Your task to perform on an android device: Open calendar and show me the first week of next month Image 0: 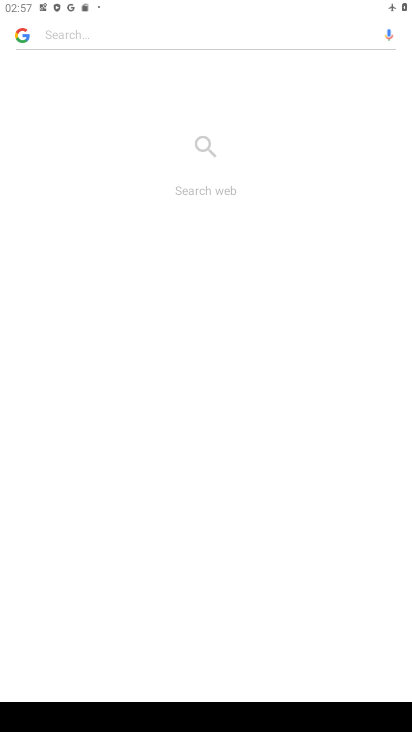
Step 0: press back button
Your task to perform on an android device: Open calendar and show me the first week of next month Image 1: 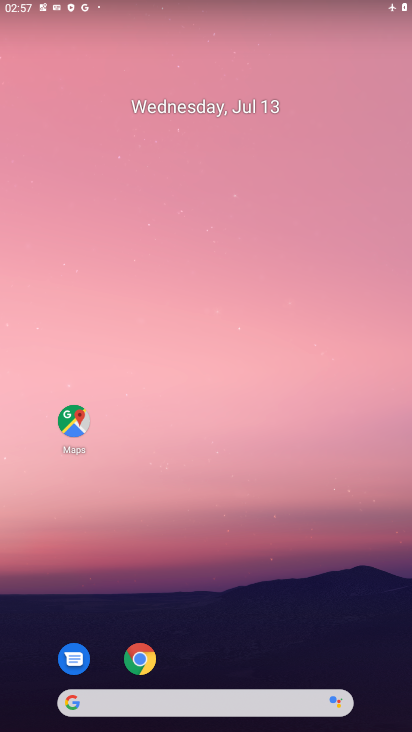
Step 1: drag from (370, 637) to (405, 147)
Your task to perform on an android device: Open calendar and show me the first week of next month Image 2: 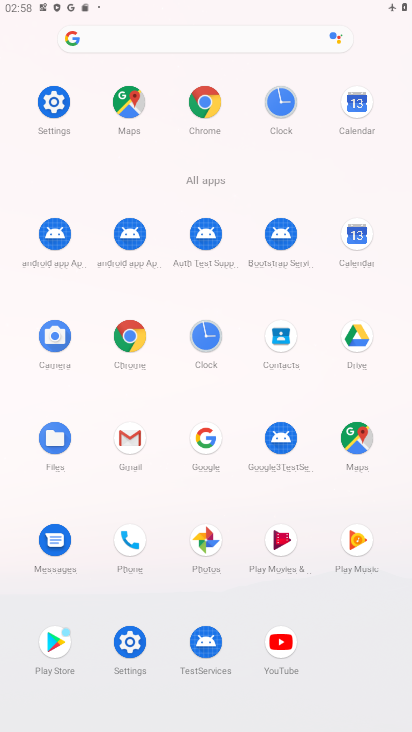
Step 2: click (363, 120)
Your task to perform on an android device: Open calendar and show me the first week of next month Image 3: 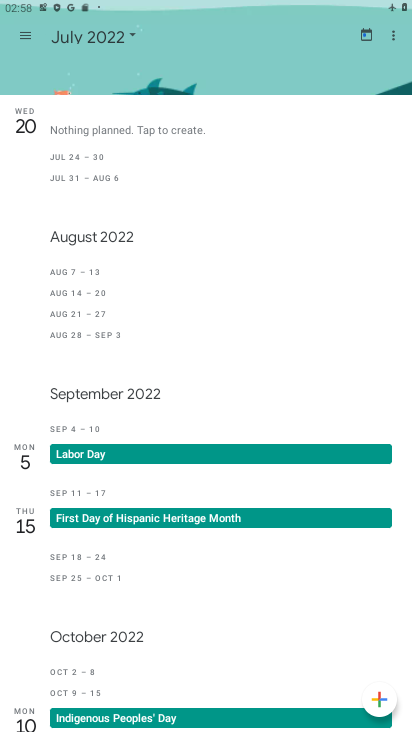
Step 3: click (106, 37)
Your task to perform on an android device: Open calendar and show me the first week of next month Image 4: 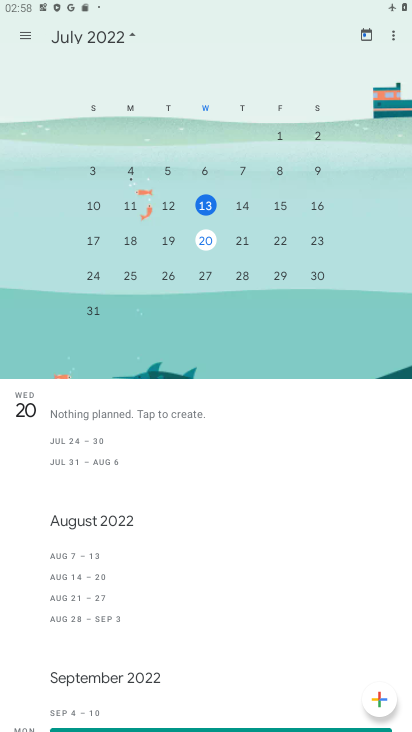
Step 4: drag from (360, 278) to (5, 280)
Your task to perform on an android device: Open calendar and show me the first week of next month Image 5: 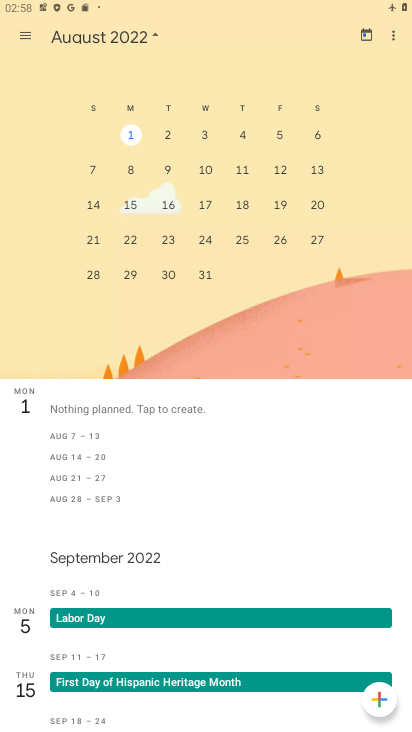
Step 5: click (177, 175)
Your task to perform on an android device: Open calendar and show me the first week of next month Image 6: 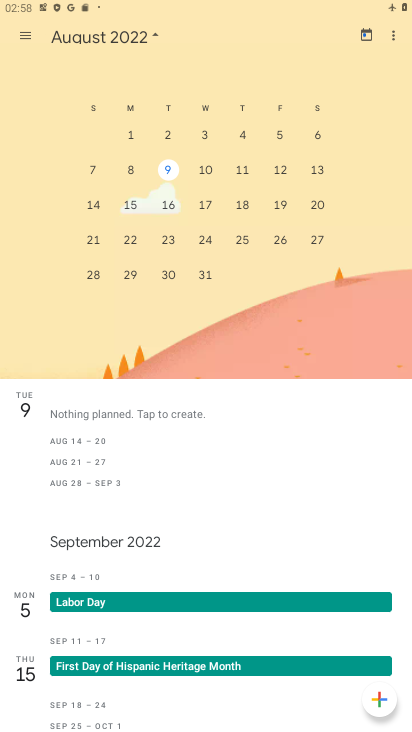
Step 6: task complete